Your task to perform on an android device: Open Amazon Image 0: 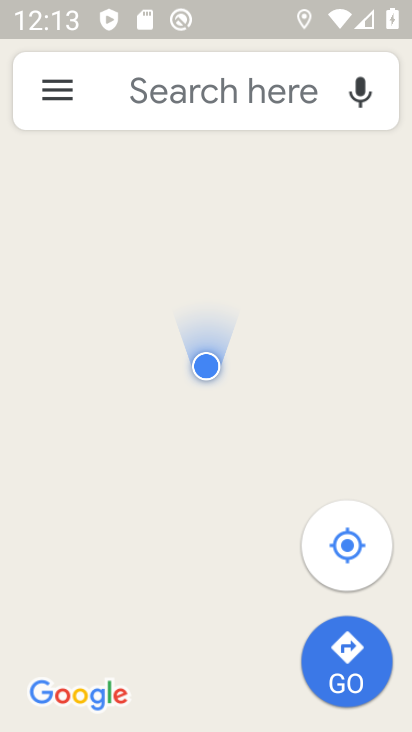
Step 0: press home button
Your task to perform on an android device: Open Amazon Image 1: 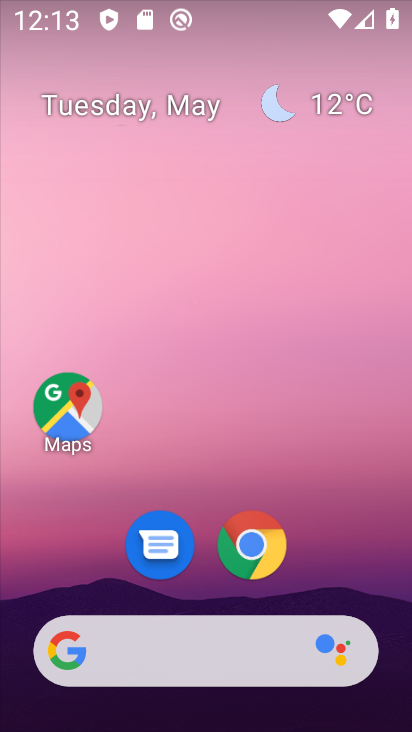
Step 1: click (276, 536)
Your task to perform on an android device: Open Amazon Image 2: 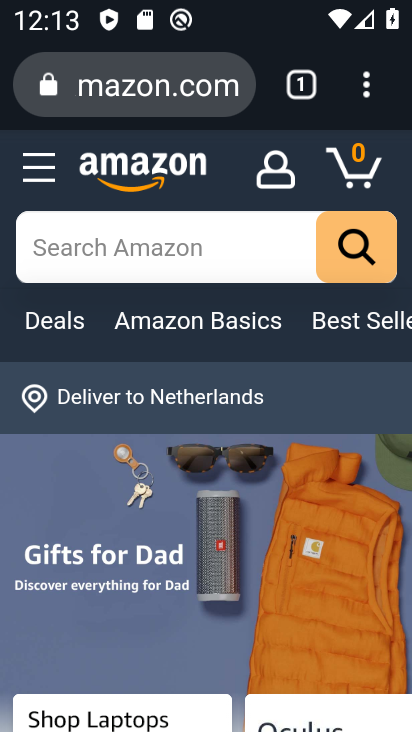
Step 2: task complete